Your task to perform on an android device: Open calendar and show me the second week of next month Image 0: 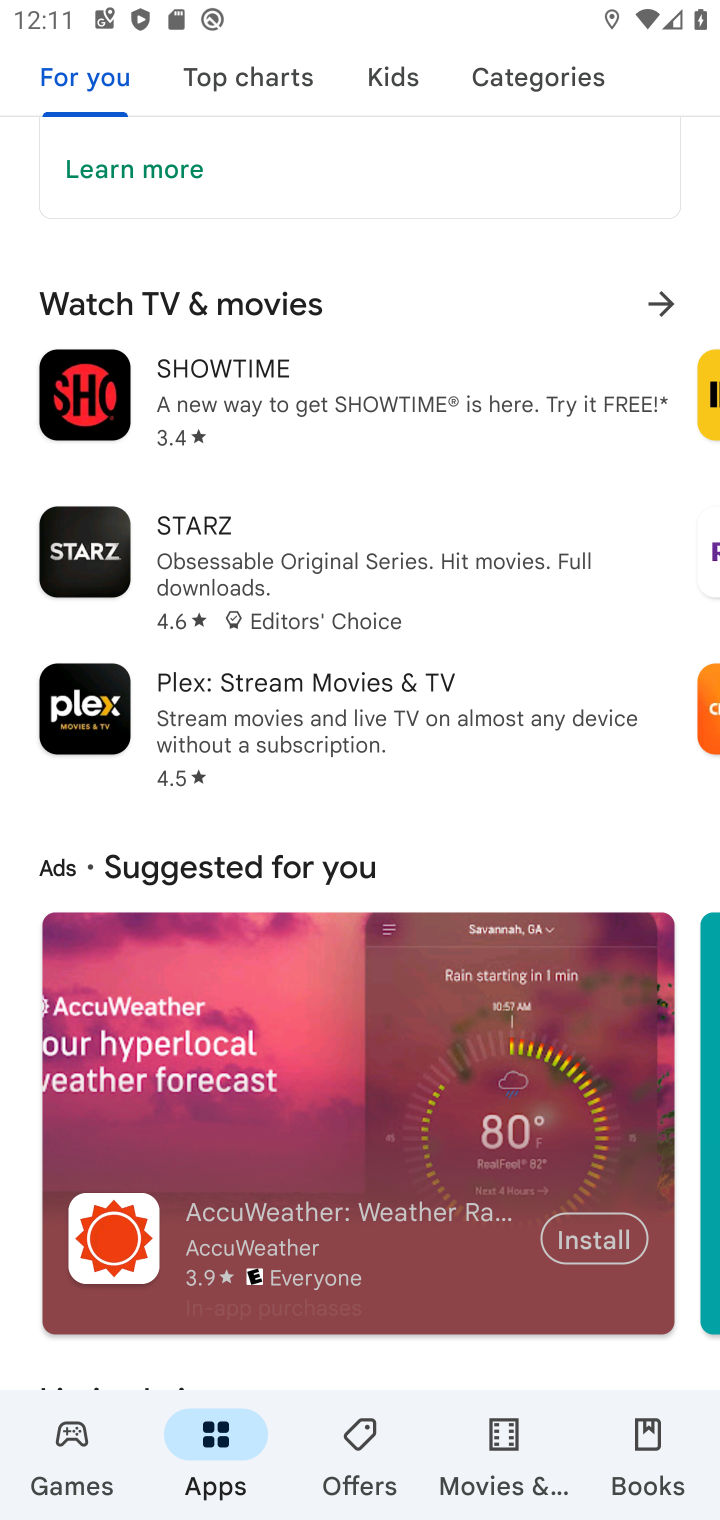
Step 0: press back button
Your task to perform on an android device: Open calendar and show me the second week of next month Image 1: 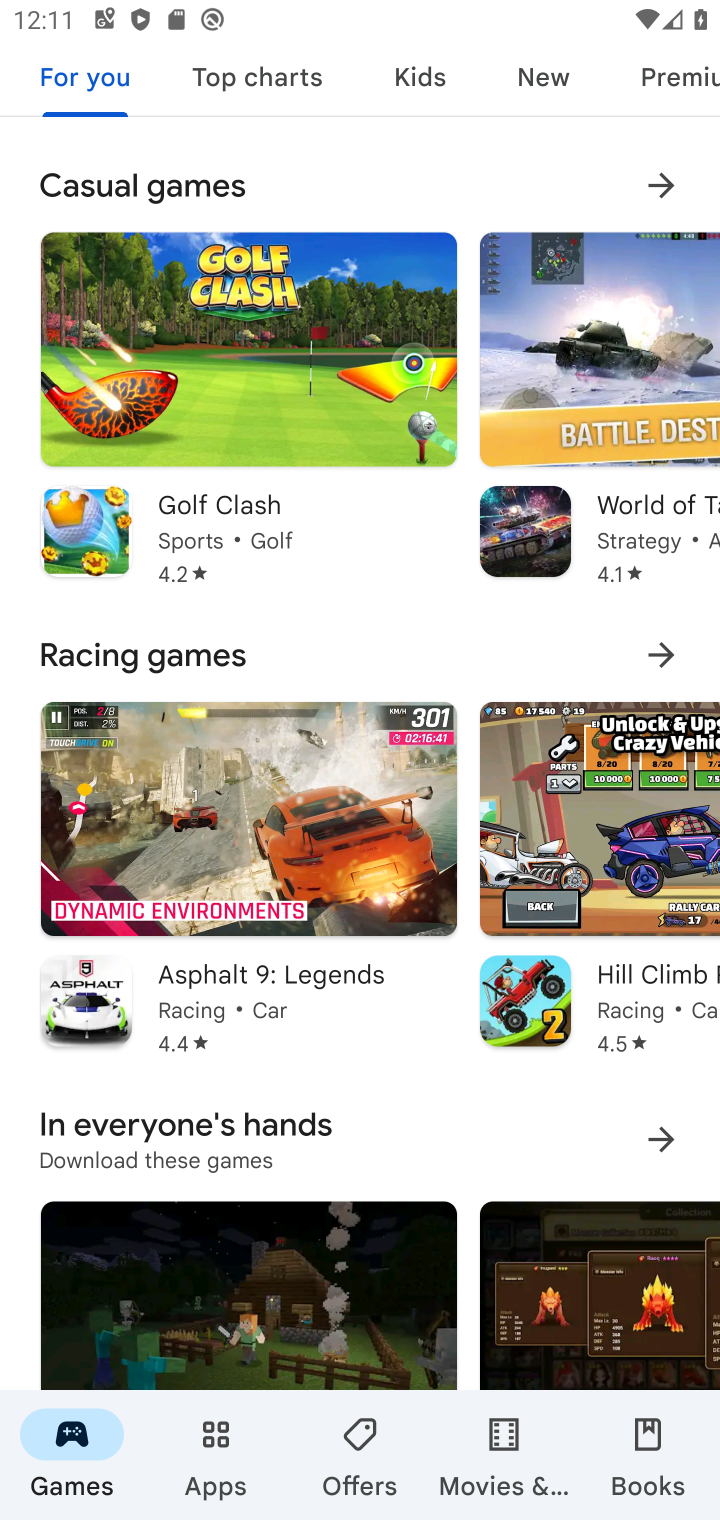
Step 1: press back button
Your task to perform on an android device: Open calendar and show me the second week of next month Image 2: 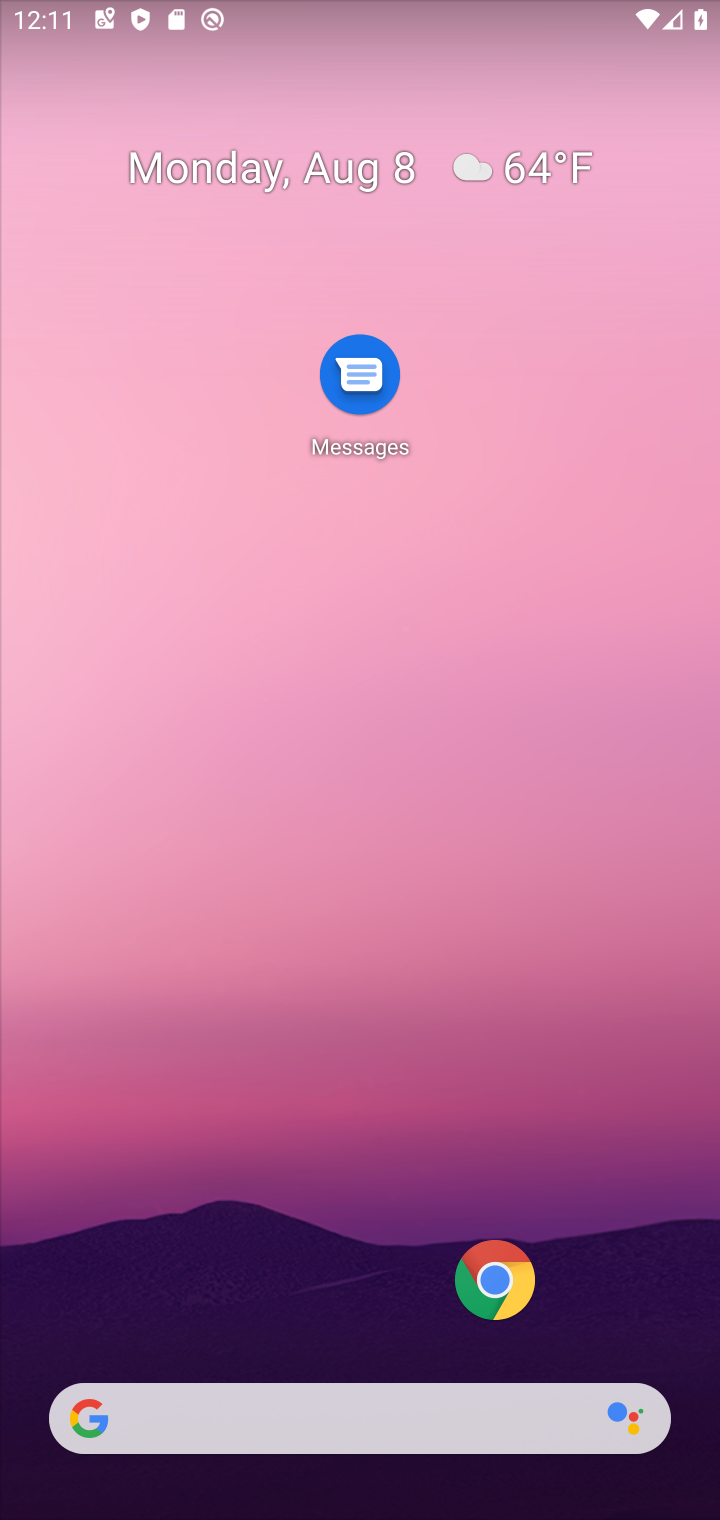
Step 2: drag from (235, 1222) to (383, 96)
Your task to perform on an android device: Open calendar and show me the second week of next month Image 3: 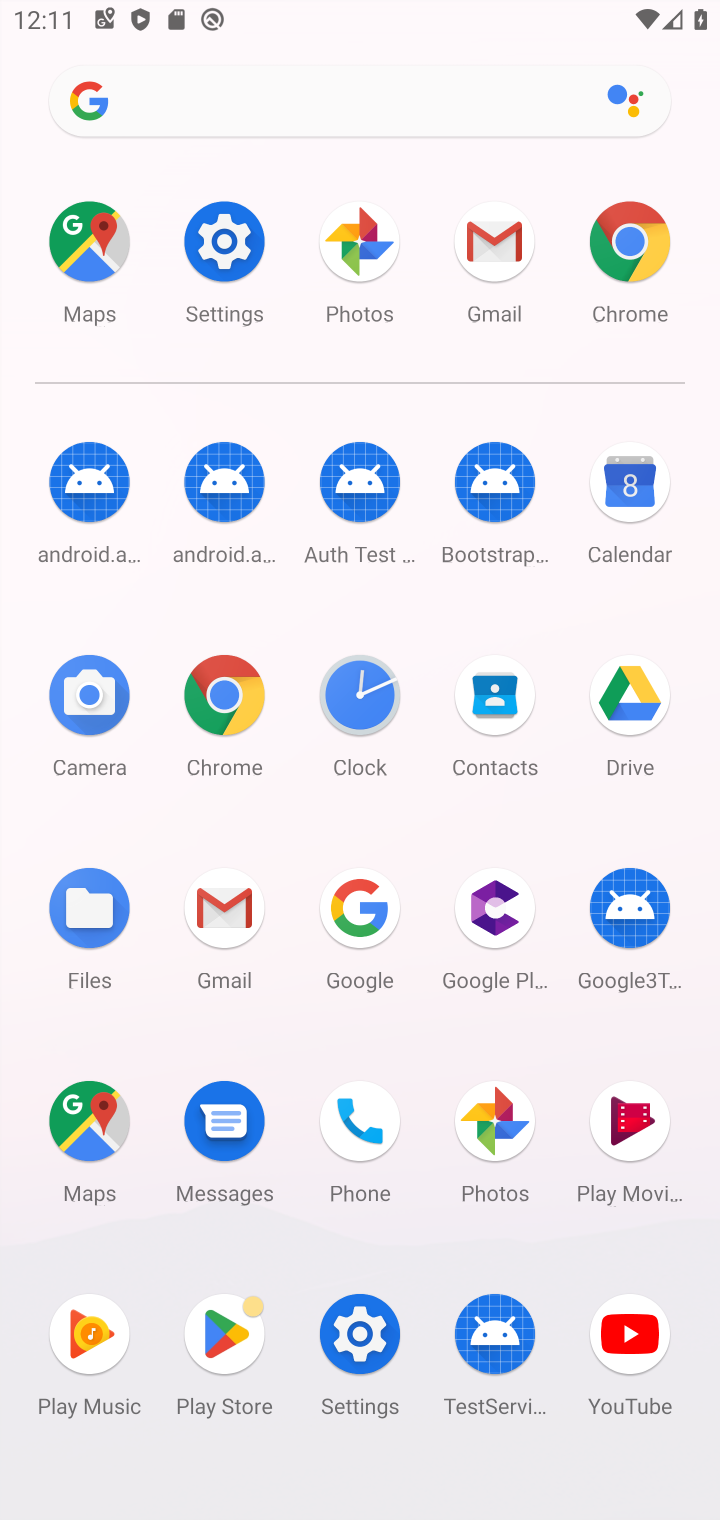
Step 3: click (626, 499)
Your task to perform on an android device: Open calendar and show me the second week of next month Image 4: 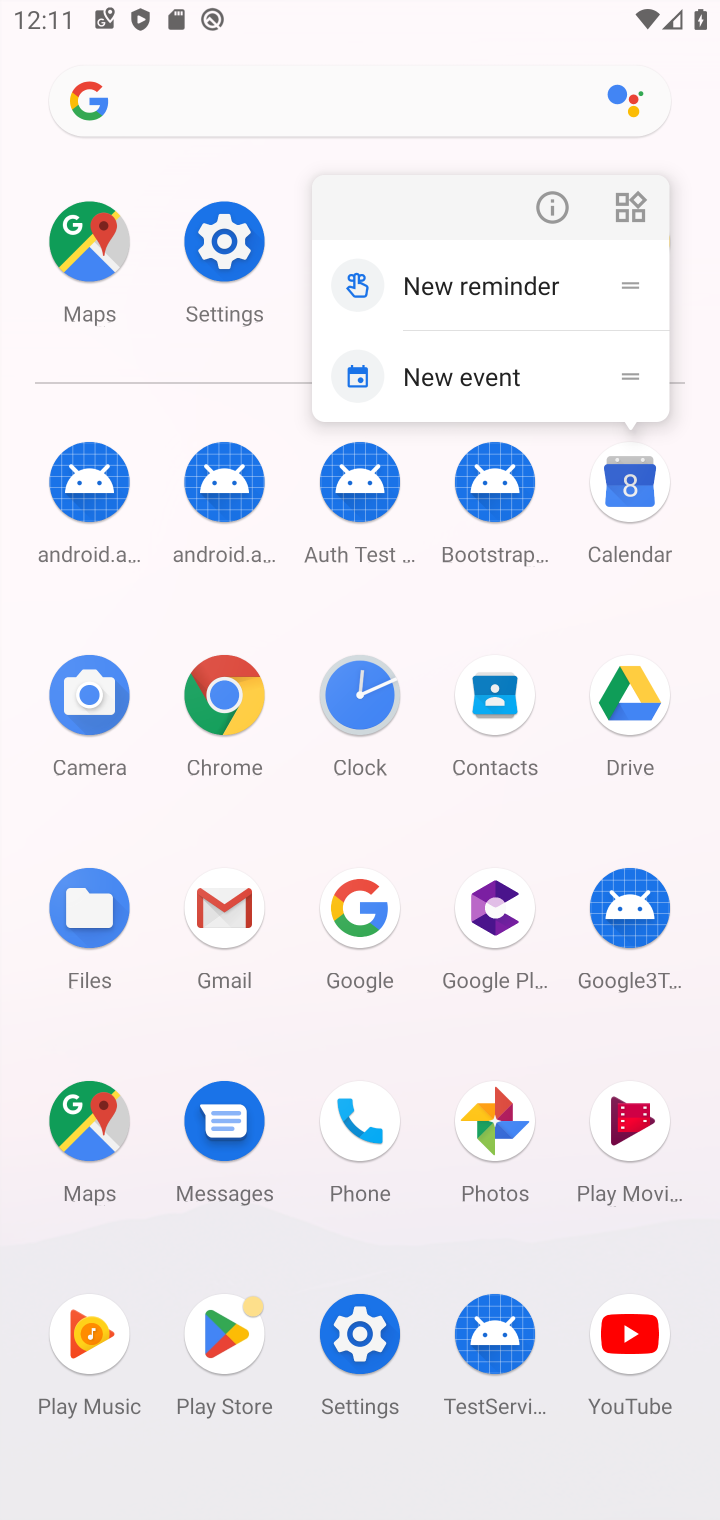
Step 4: click (628, 501)
Your task to perform on an android device: Open calendar and show me the second week of next month Image 5: 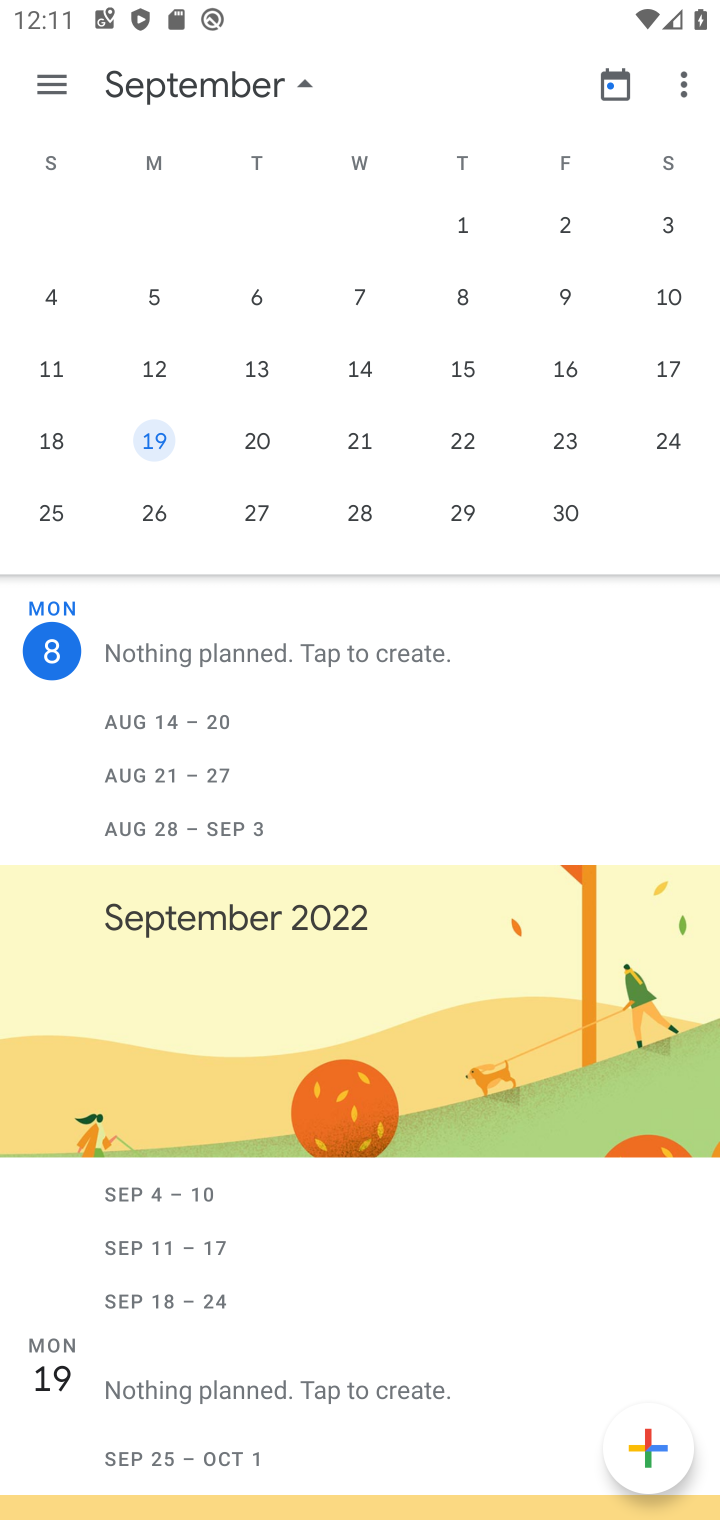
Step 5: click (286, 88)
Your task to perform on an android device: Open calendar and show me the second week of next month Image 6: 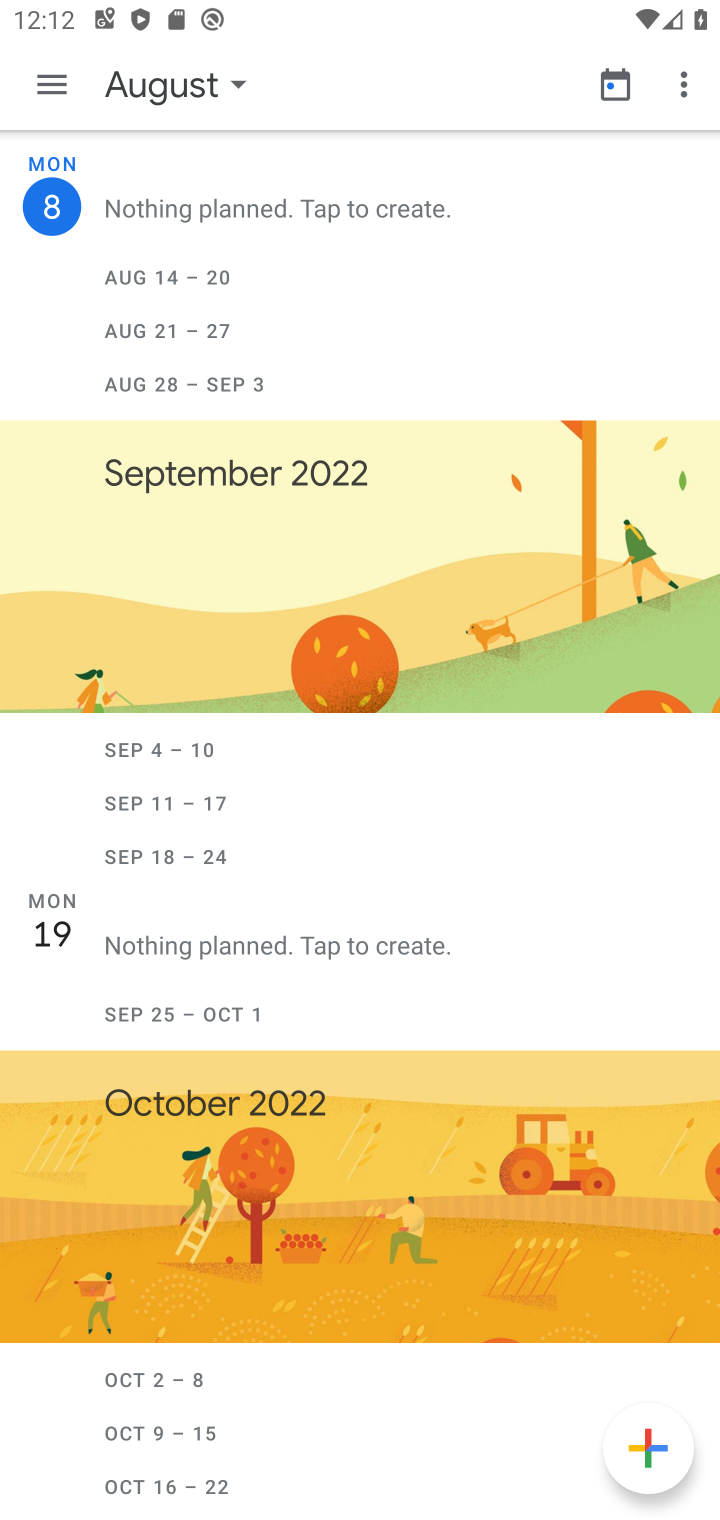
Step 6: click (203, 91)
Your task to perform on an android device: Open calendar and show me the second week of next month Image 7: 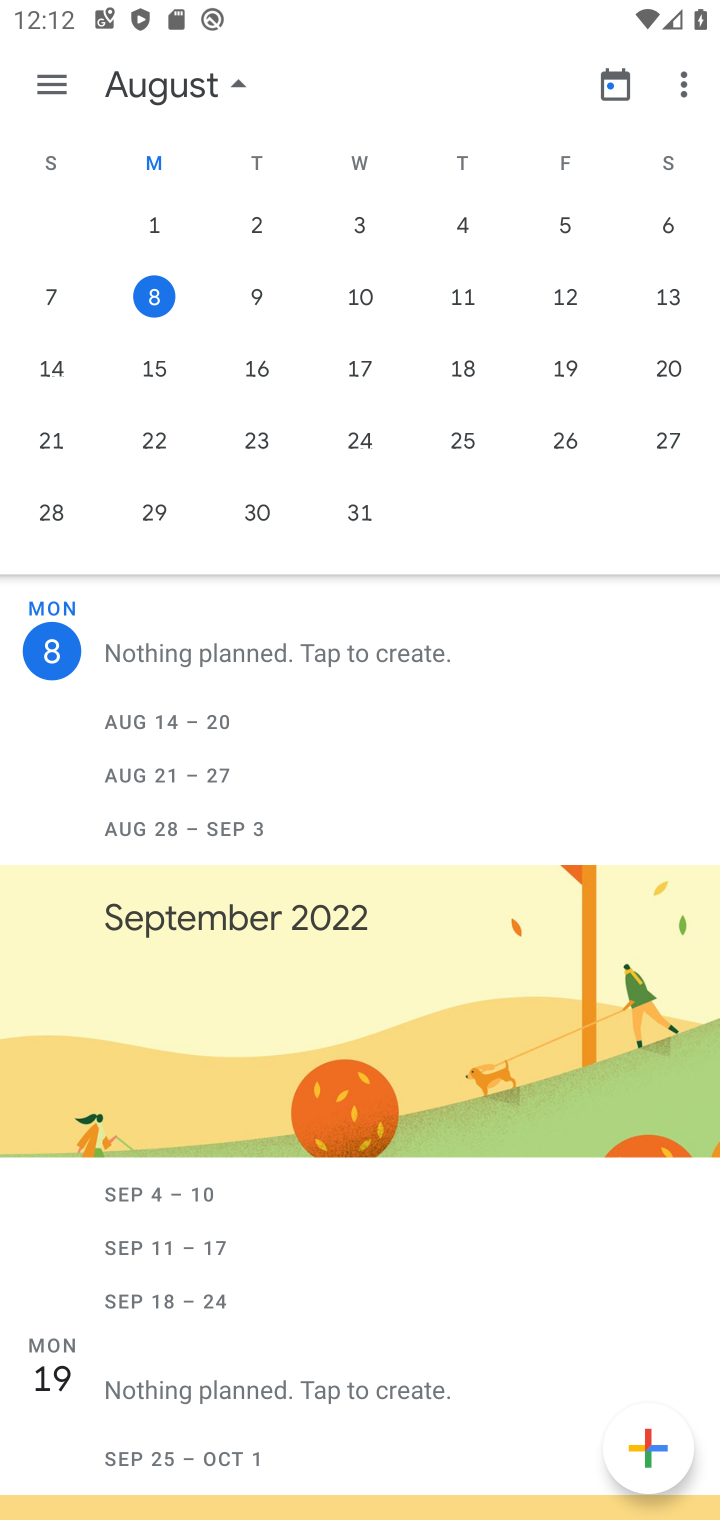
Step 7: drag from (663, 382) to (21, 393)
Your task to perform on an android device: Open calendar and show me the second week of next month Image 8: 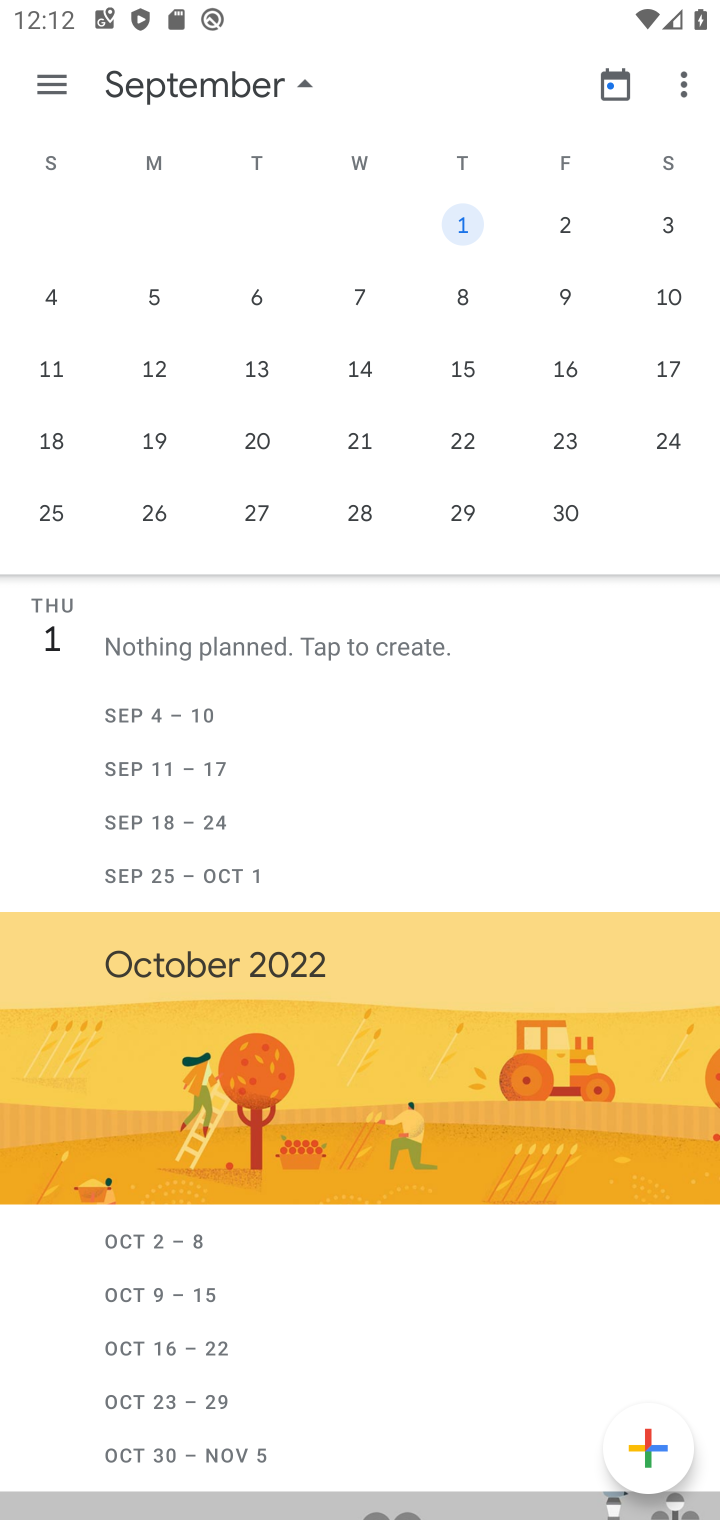
Step 8: click (159, 294)
Your task to perform on an android device: Open calendar and show me the second week of next month Image 9: 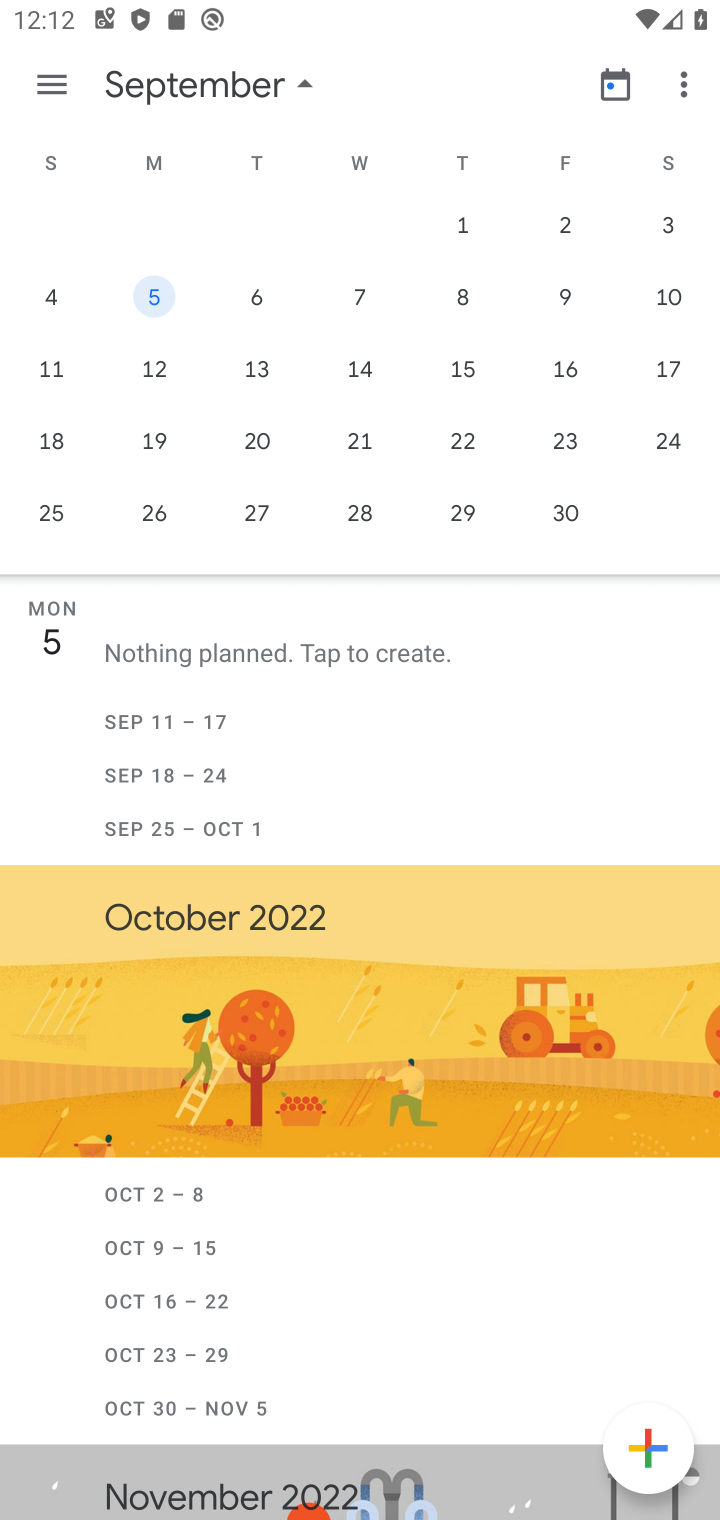
Step 9: task complete